Your task to perform on an android device: Open Yahoo.com Image 0: 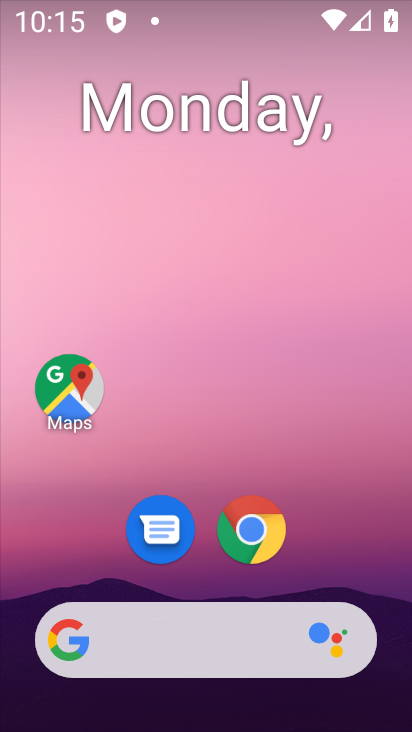
Step 0: click (255, 529)
Your task to perform on an android device: Open Yahoo.com Image 1: 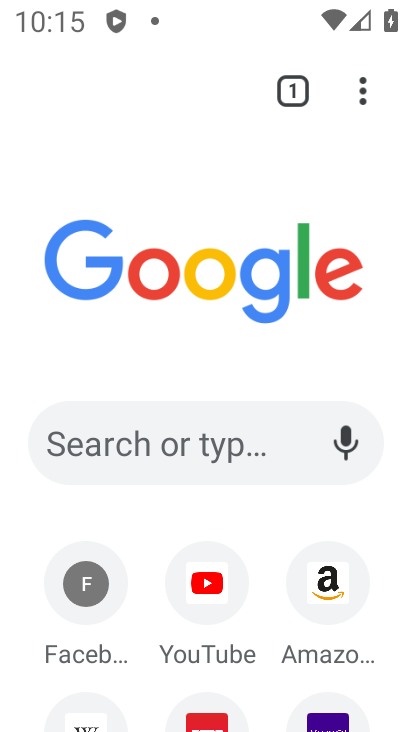
Step 1: drag from (341, 337) to (324, 49)
Your task to perform on an android device: Open Yahoo.com Image 2: 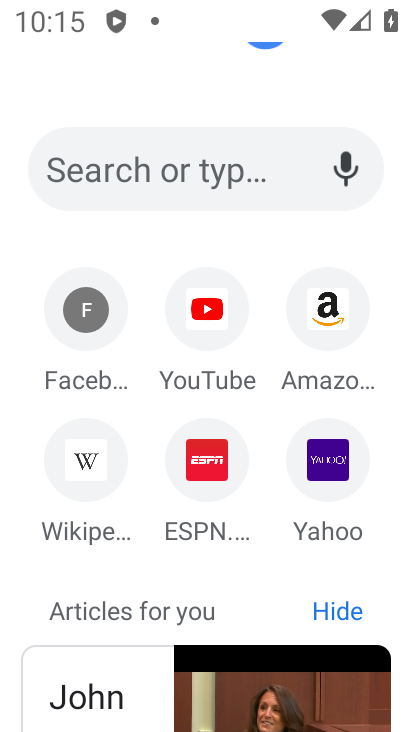
Step 2: click (331, 460)
Your task to perform on an android device: Open Yahoo.com Image 3: 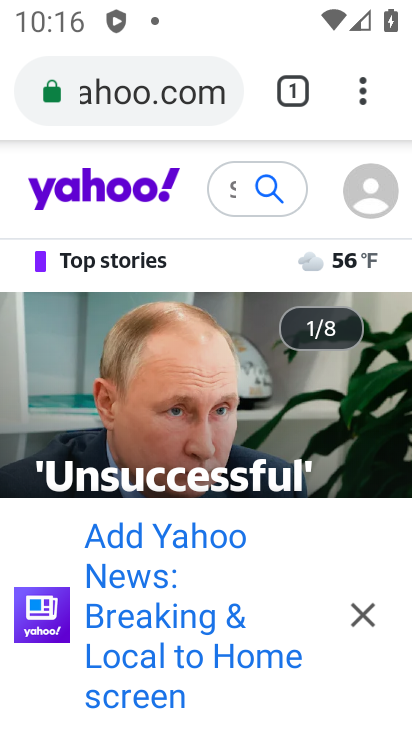
Step 3: click (364, 626)
Your task to perform on an android device: Open Yahoo.com Image 4: 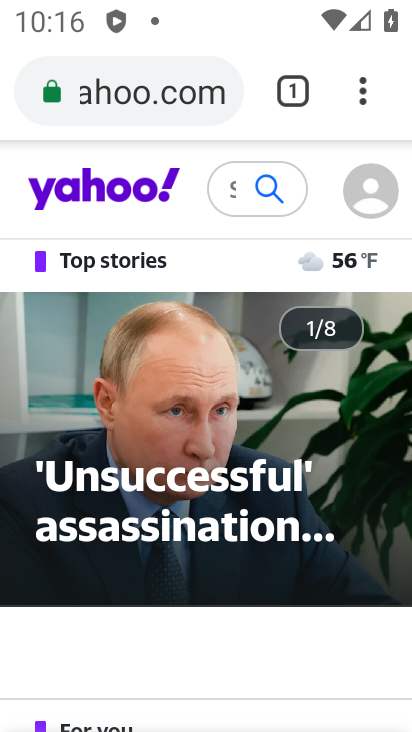
Step 4: task complete